Your task to perform on an android device: move an email to a new category in the gmail app Image 0: 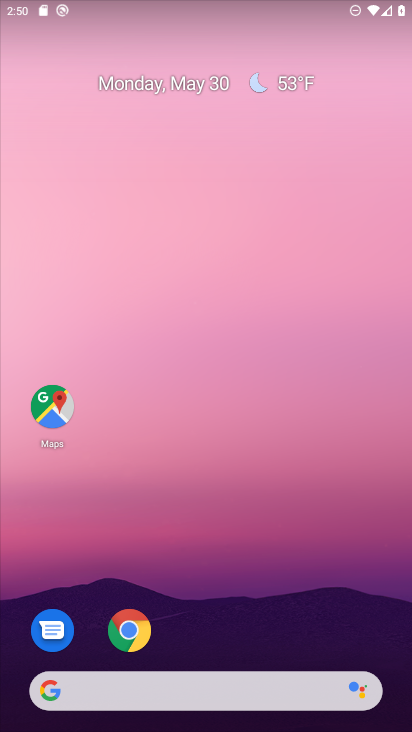
Step 0: drag from (151, 696) to (215, 126)
Your task to perform on an android device: move an email to a new category in the gmail app Image 1: 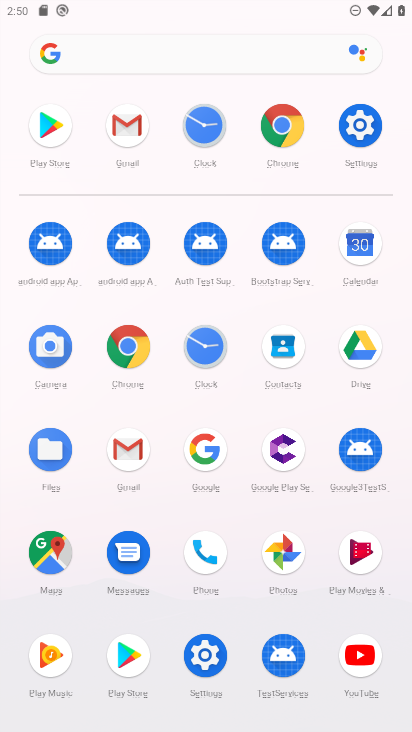
Step 1: click (124, 438)
Your task to perform on an android device: move an email to a new category in the gmail app Image 2: 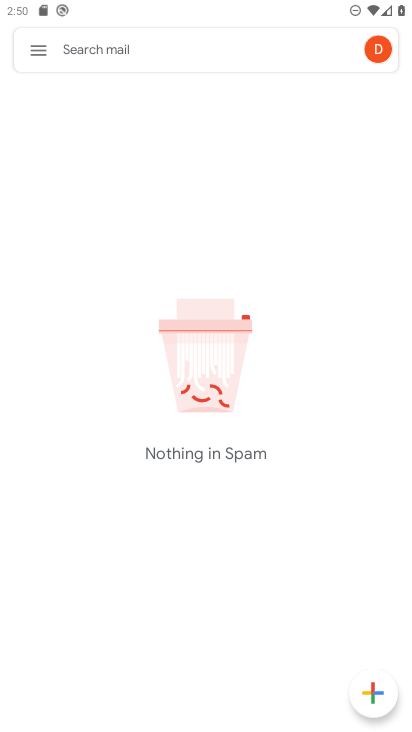
Step 2: click (31, 47)
Your task to perform on an android device: move an email to a new category in the gmail app Image 3: 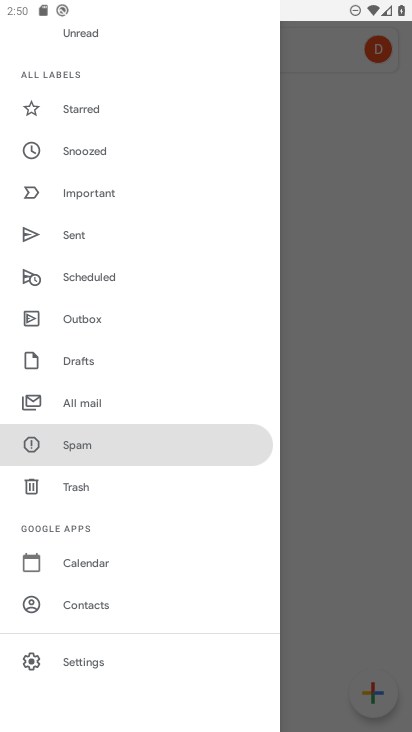
Step 3: click (96, 406)
Your task to perform on an android device: move an email to a new category in the gmail app Image 4: 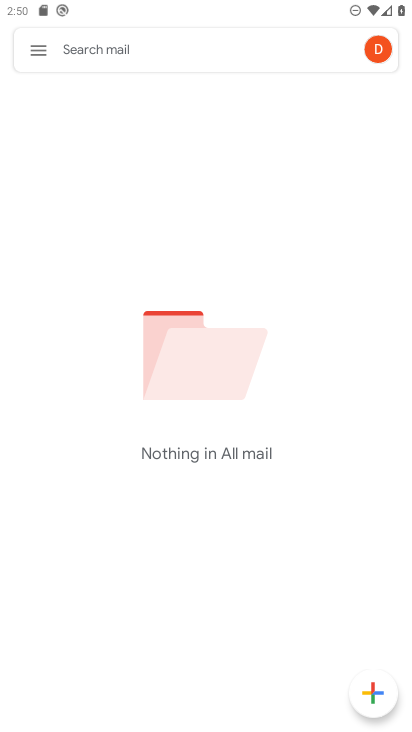
Step 4: task complete